Your task to perform on an android device: empty trash in google photos Image 0: 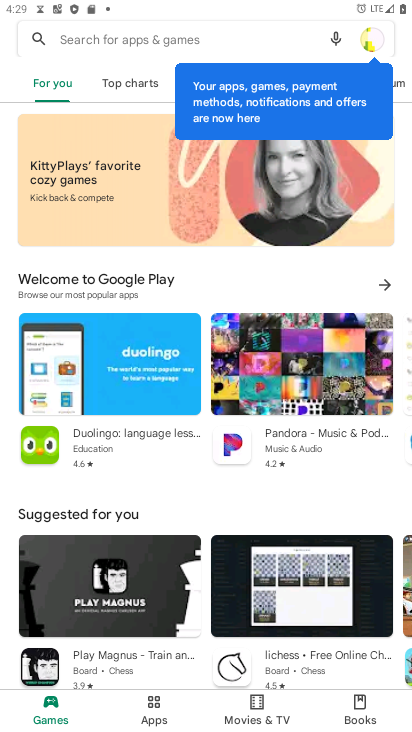
Step 0: press back button
Your task to perform on an android device: empty trash in google photos Image 1: 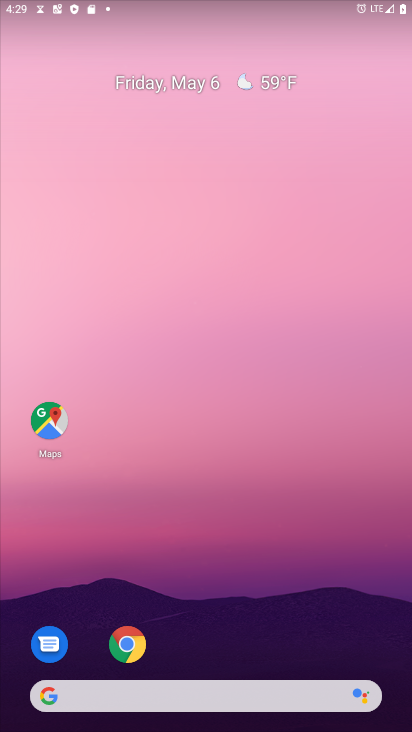
Step 1: drag from (201, 627) to (216, 26)
Your task to perform on an android device: empty trash in google photos Image 2: 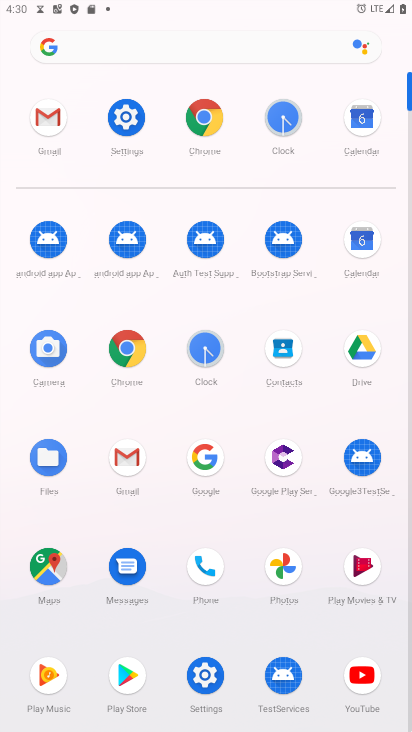
Step 2: click (282, 563)
Your task to perform on an android device: empty trash in google photos Image 3: 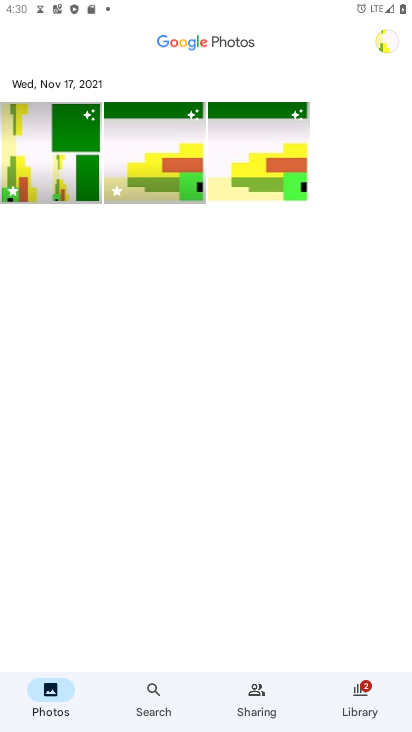
Step 3: click (363, 689)
Your task to perform on an android device: empty trash in google photos Image 4: 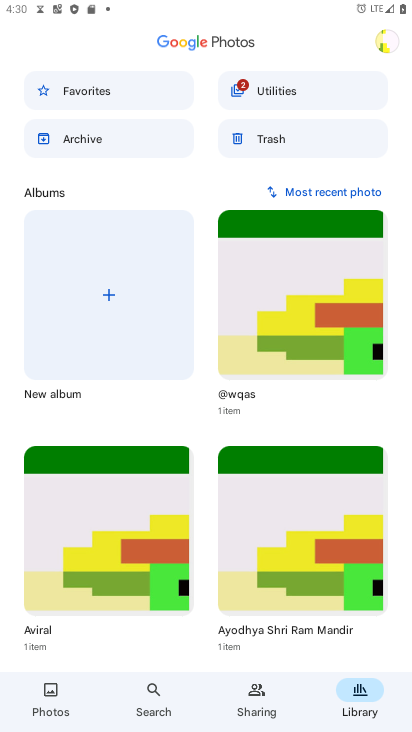
Step 4: click (290, 141)
Your task to perform on an android device: empty trash in google photos Image 5: 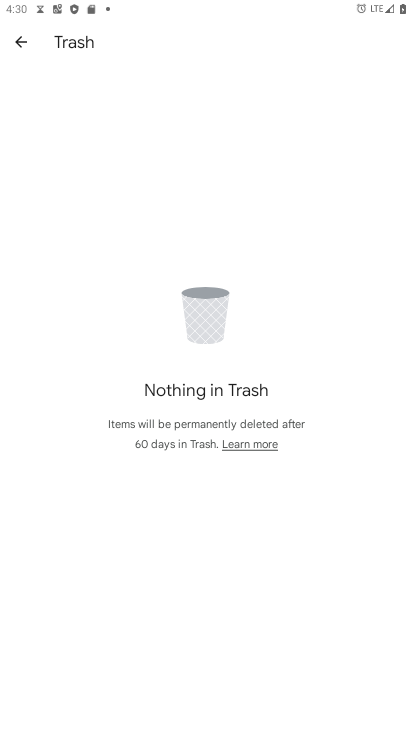
Step 5: task complete